Your task to perform on an android device: Go to settings Image 0: 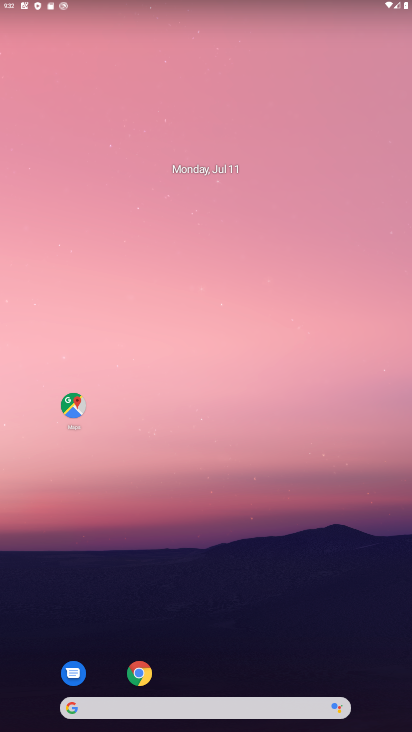
Step 0: drag from (331, 643) to (318, 0)
Your task to perform on an android device: Go to settings Image 1: 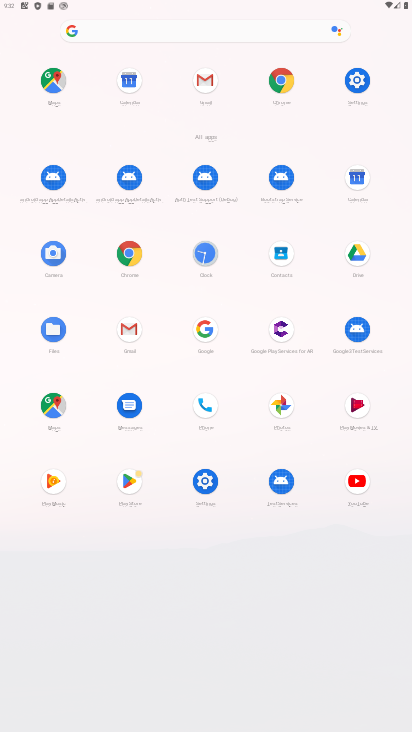
Step 1: click (365, 82)
Your task to perform on an android device: Go to settings Image 2: 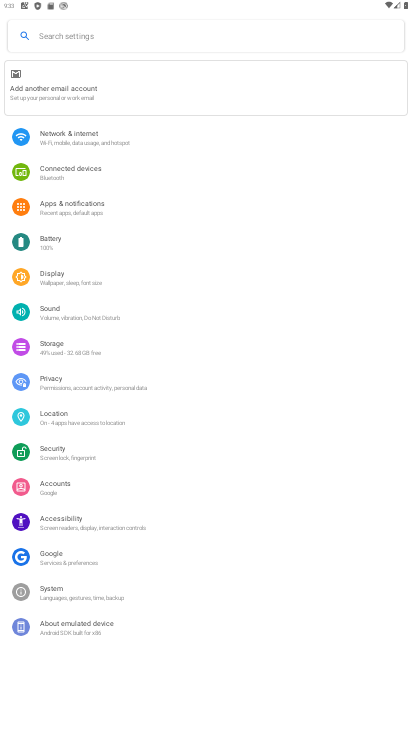
Step 2: task complete